Your task to perform on an android device: Is it going to rain today? Image 0: 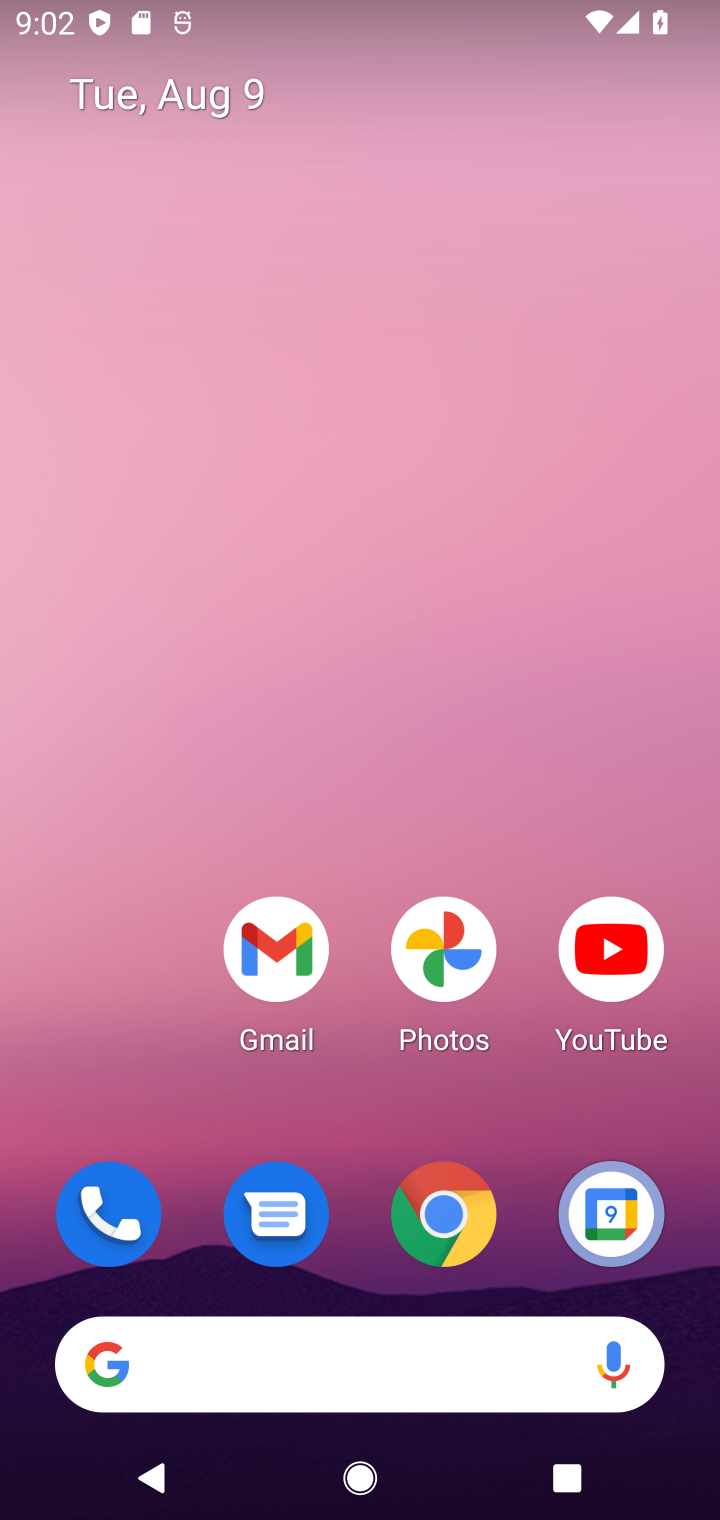
Step 0: drag from (84, 1470) to (520, 400)
Your task to perform on an android device: Is it going to rain today? Image 1: 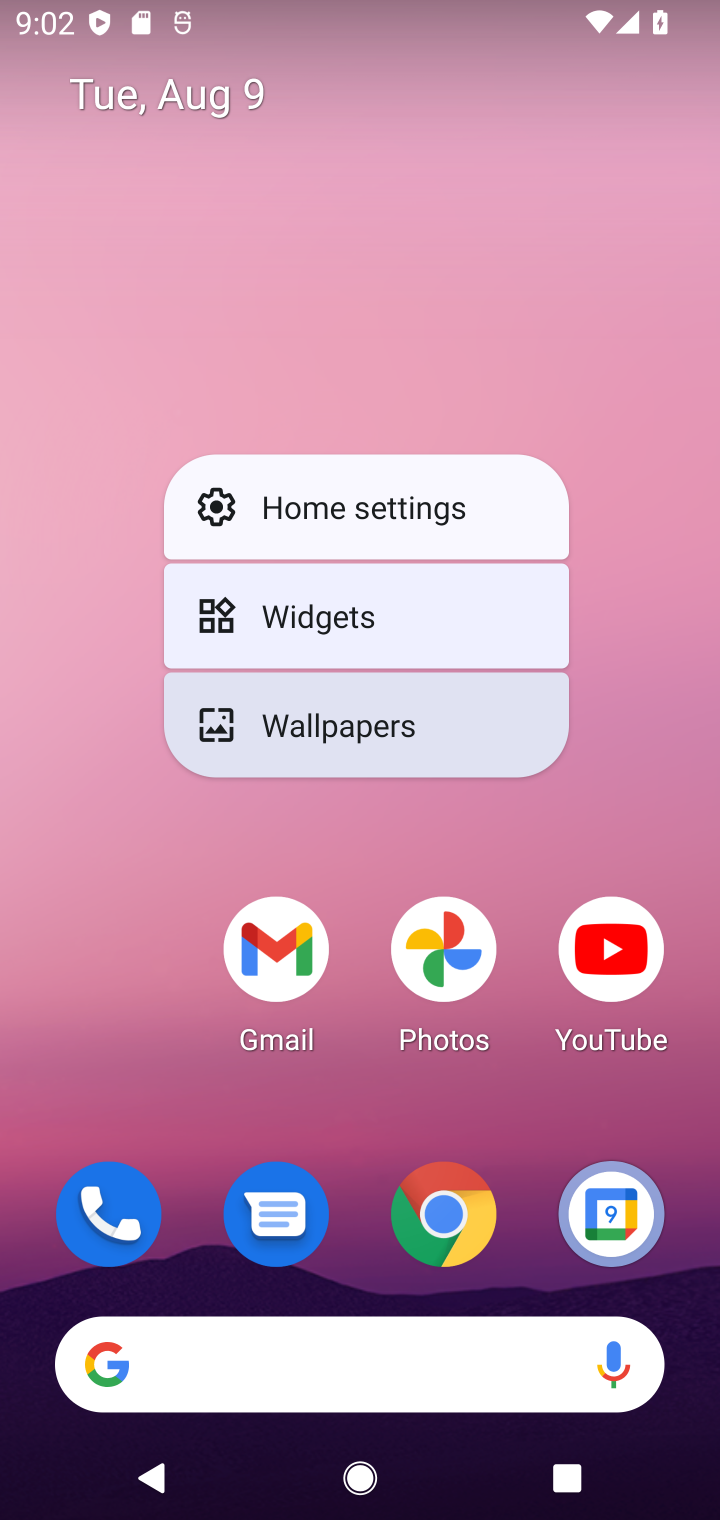
Step 1: click (199, 1363)
Your task to perform on an android device: Is it going to rain today? Image 2: 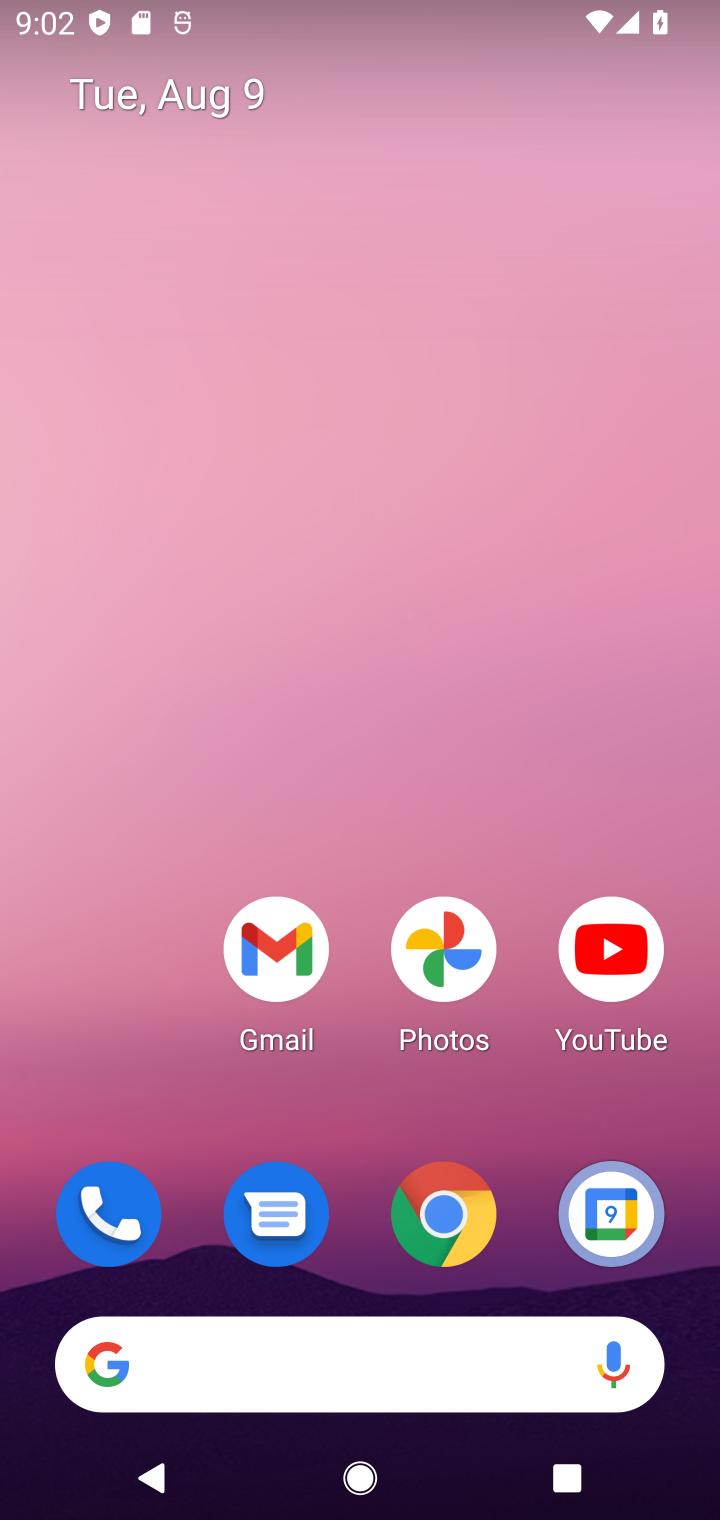
Step 2: click (252, 1346)
Your task to perform on an android device: Is it going to rain today? Image 3: 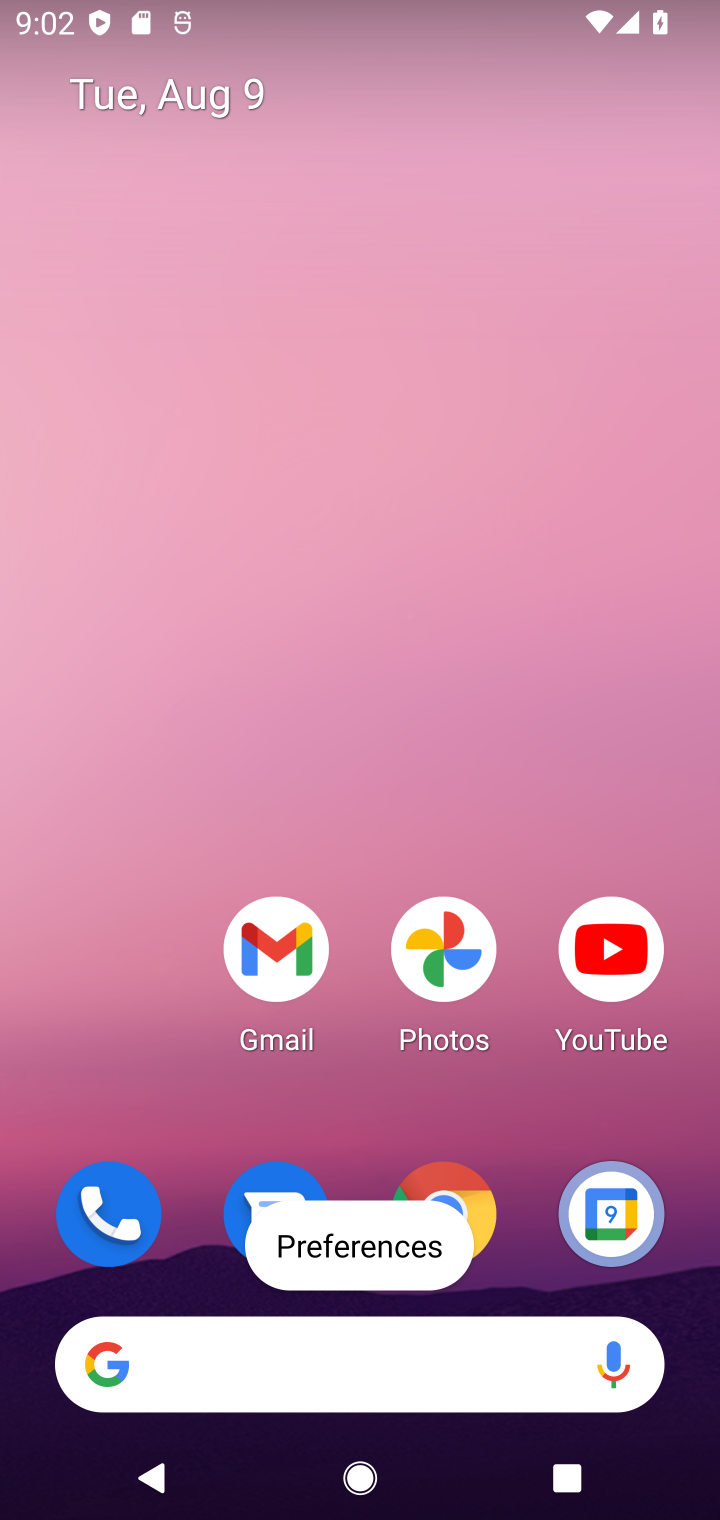
Step 3: click (252, 1346)
Your task to perform on an android device: Is it going to rain today? Image 4: 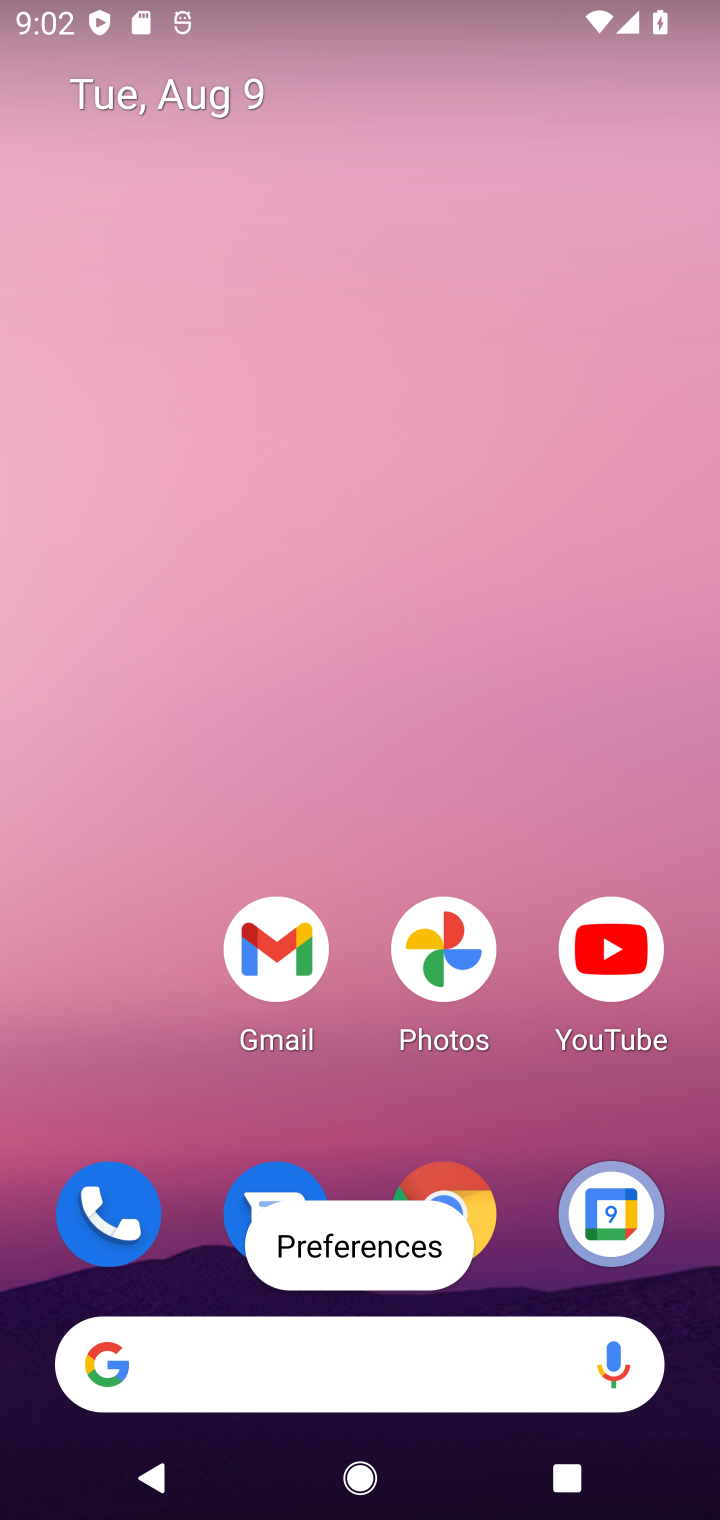
Step 4: task complete